Your task to perform on an android device: open the mobile data screen to see how much data has been used Image 0: 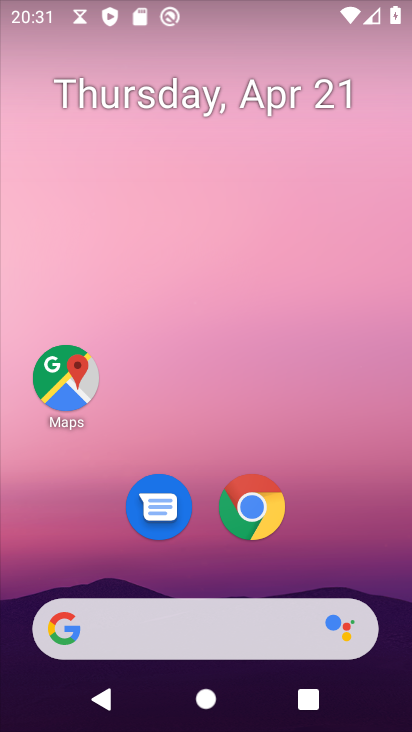
Step 0: drag from (215, 330) to (288, 0)
Your task to perform on an android device: open the mobile data screen to see how much data has been used Image 1: 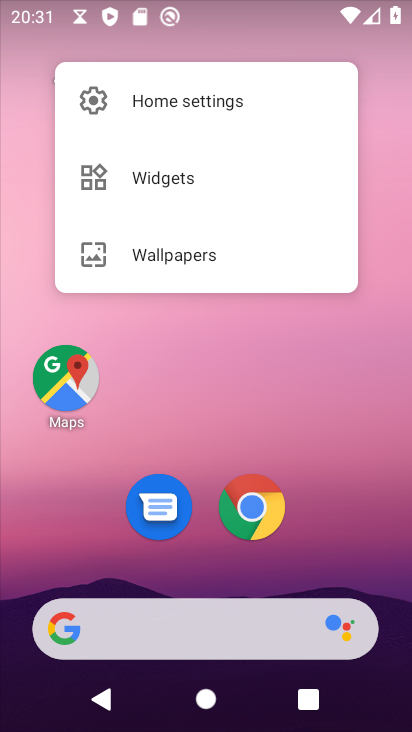
Step 1: drag from (240, 268) to (270, 101)
Your task to perform on an android device: open the mobile data screen to see how much data has been used Image 2: 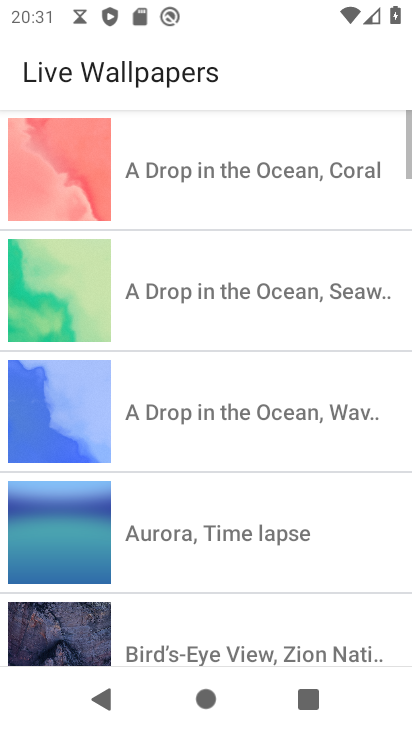
Step 2: click (249, 372)
Your task to perform on an android device: open the mobile data screen to see how much data has been used Image 3: 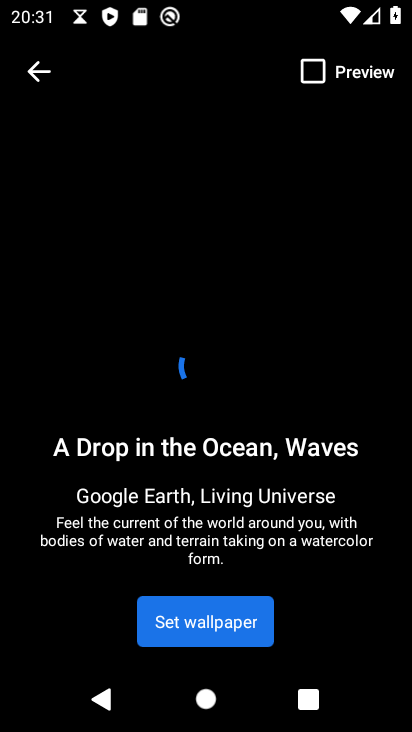
Step 3: press back button
Your task to perform on an android device: open the mobile data screen to see how much data has been used Image 4: 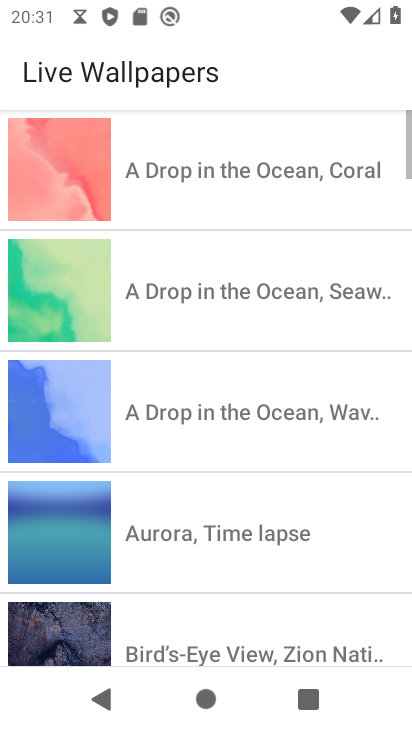
Step 4: press back button
Your task to perform on an android device: open the mobile data screen to see how much data has been used Image 5: 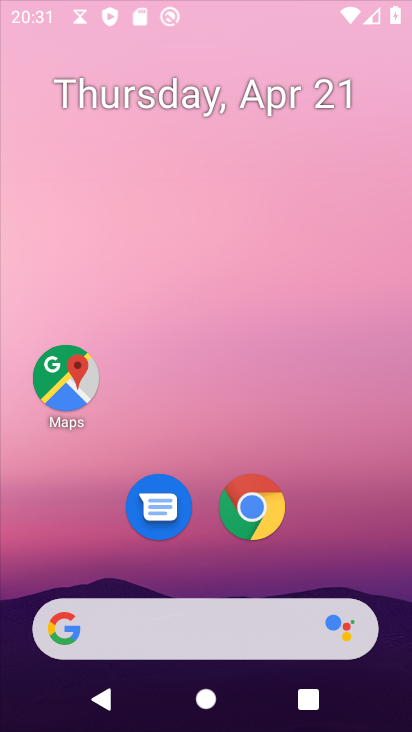
Step 5: press back button
Your task to perform on an android device: open the mobile data screen to see how much data has been used Image 6: 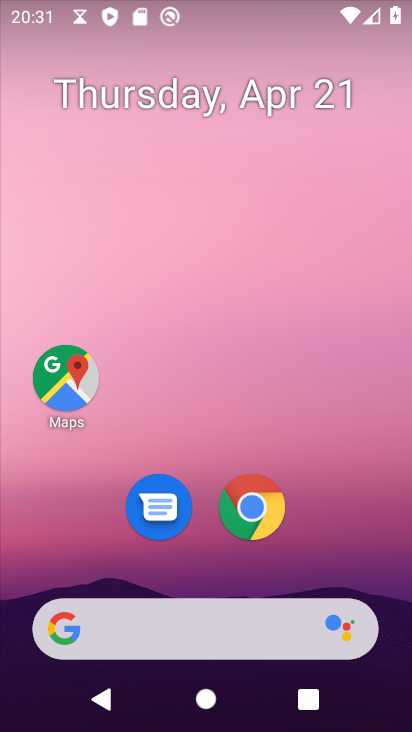
Step 6: drag from (199, 572) to (302, 68)
Your task to perform on an android device: open the mobile data screen to see how much data has been used Image 7: 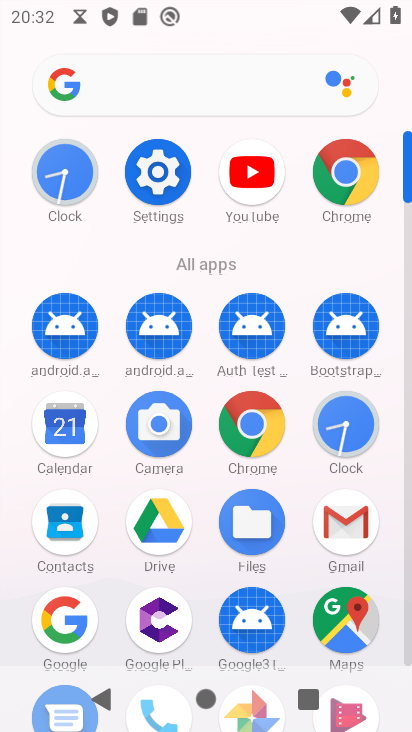
Step 7: click (161, 171)
Your task to perform on an android device: open the mobile data screen to see how much data has been used Image 8: 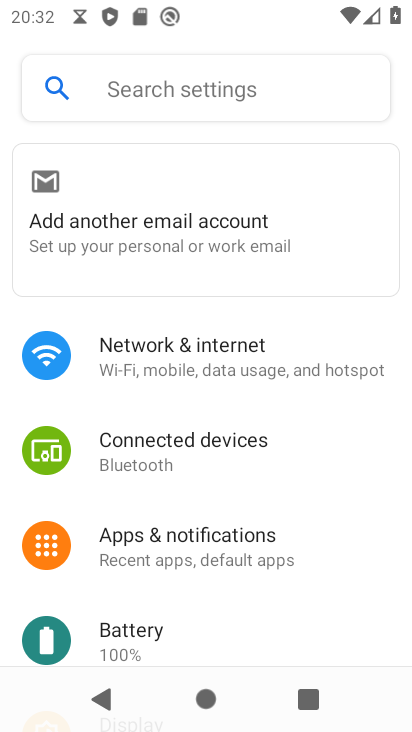
Step 8: click (217, 365)
Your task to perform on an android device: open the mobile data screen to see how much data has been used Image 9: 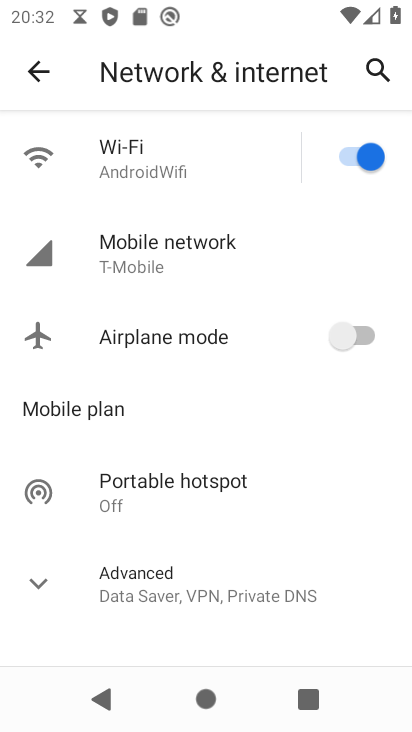
Step 9: click (186, 256)
Your task to perform on an android device: open the mobile data screen to see how much data has been used Image 10: 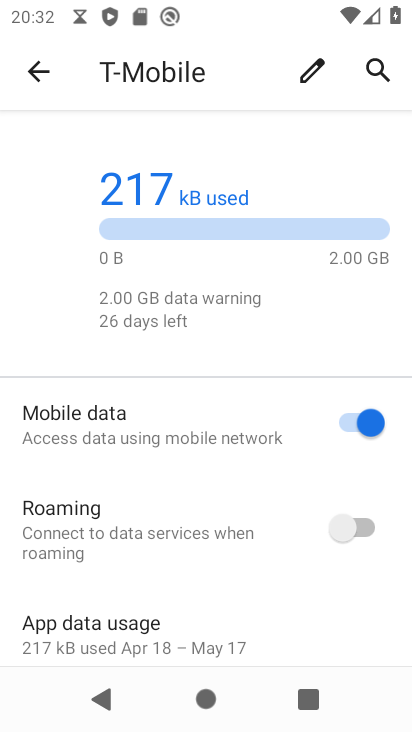
Step 10: click (143, 624)
Your task to perform on an android device: open the mobile data screen to see how much data has been used Image 11: 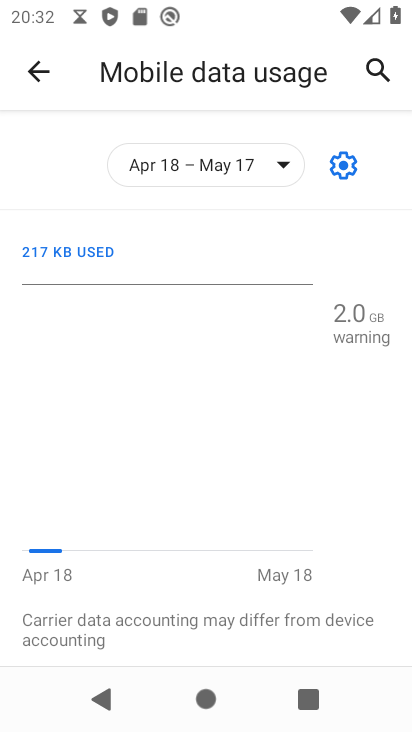
Step 11: task complete